Your task to perform on an android device: Search for vegetarian restaurants on Maps Image 0: 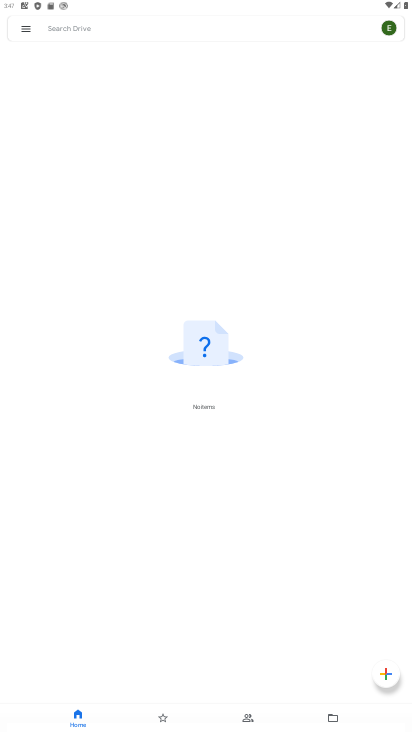
Step 0: press home button
Your task to perform on an android device: Search for vegetarian restaurants on Maps Image 1: 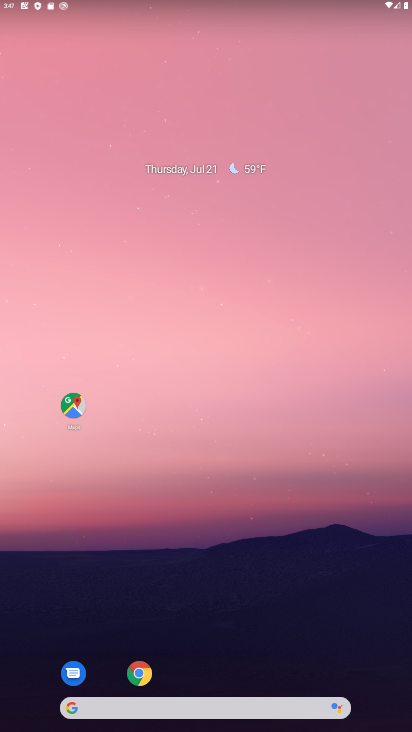
Step 1: click (72, 404)
Your task to perform on an android device: Search for vegetarian restaurants on Maps Image 2: 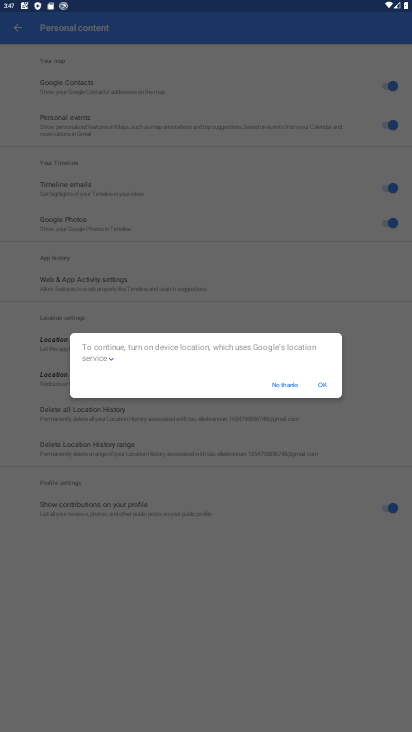
Step 2: press back button
Your task to perform on an android device: Search for vegetarian restaurants on Maps Image 3: 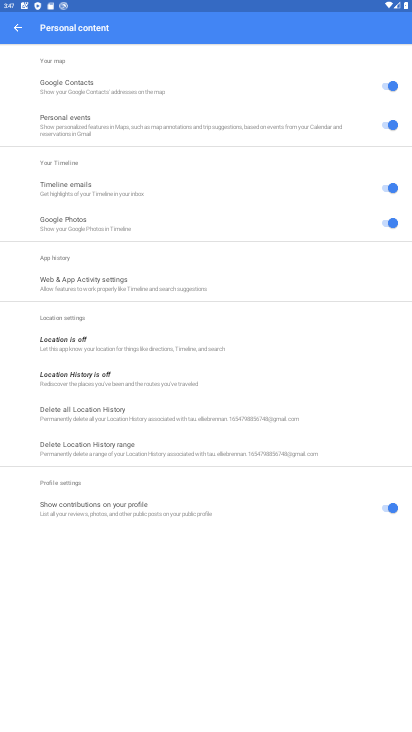
Step 3: press back button
Your task to perform on an android device: Search for vegetarian restaurants on Maps Image 4: 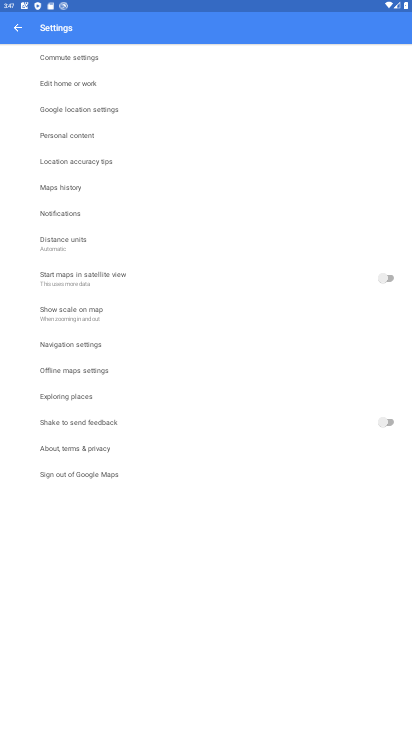
Step 4: press back button
Your task to perform on an android device: Search for vegetarian restaurants on Maps Image 5: 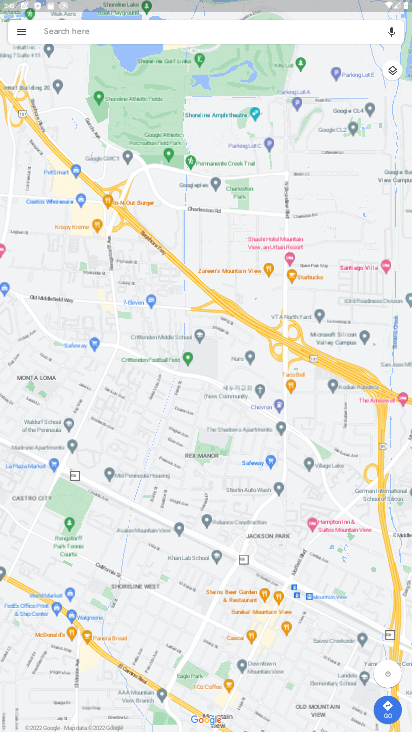
Step 5: click (75, 29)
Your task to perform on an android device: Search for vegetarian restaurants on Maps Image 6: 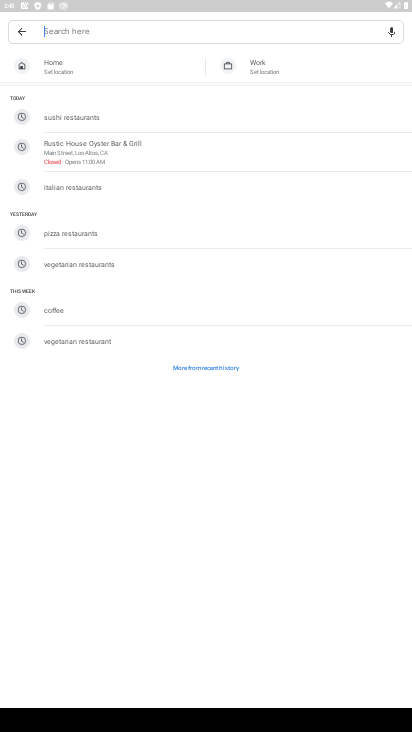
Step 6: type "vegetarian restaurants"
Your task to perform on an android device: Search for vegetarian restaurants on Maps Image 7: 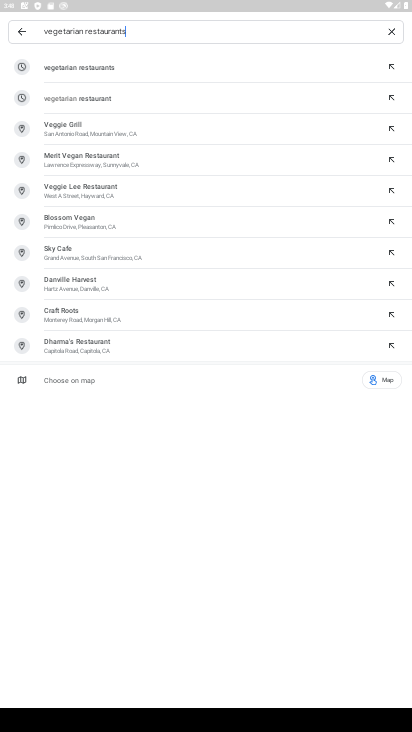
Step 7: click (95, 75)
Your task to perform on an android device: Search for vegetarian restaurants on Maps Image 8: 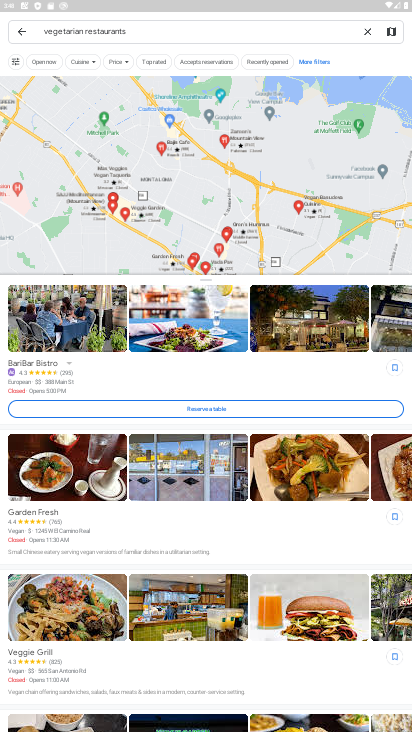
Step 8: task complete